Your task to perform on an android device: Open calendar and show me the first week of next month Image 0: 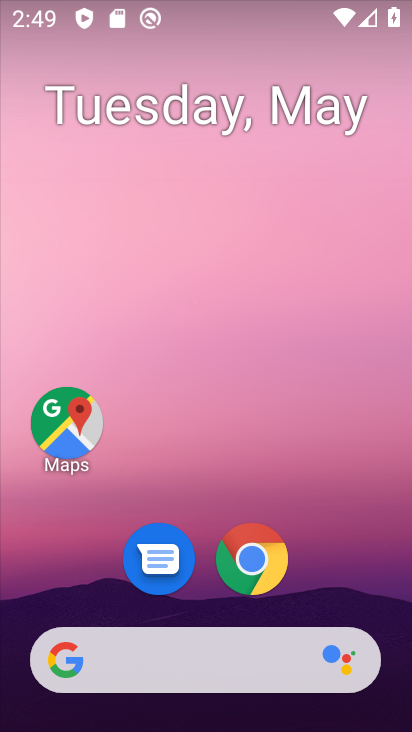
Step 0: drag from (202, 601) to (326, 68)
Your task to perform on an android device: Open calendar and show me the first week of next month Image 1: 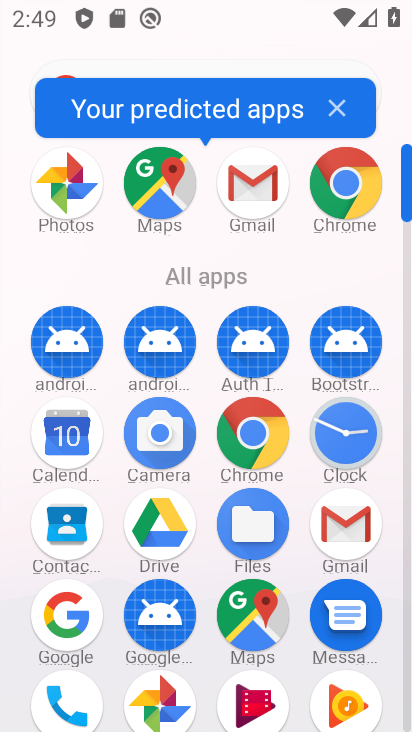
Step 1: click (83, 456)
Your task to perform on an android device: Open calendar and show me the first week of next month Image 2: 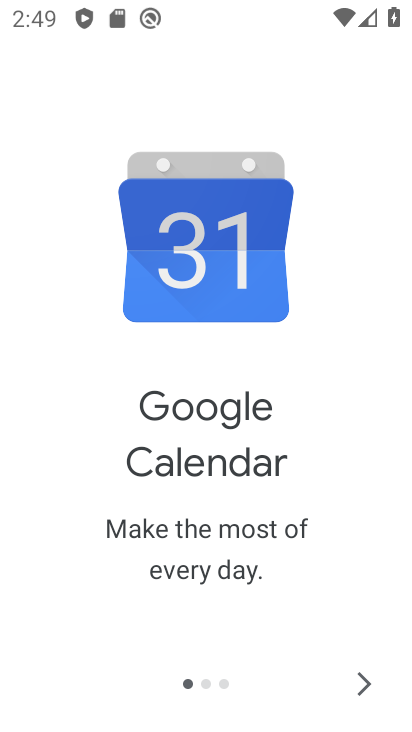
Step 2: click (343, 693)
Your task to perform on an android device: Open calendar and show me the first week of next month Image 3: 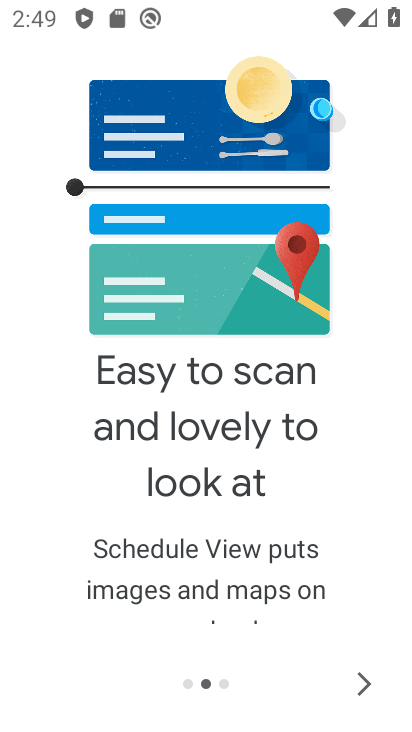
Step 3: click (356, 681)
Your task to perform on an android device: Open calendar and show me the first week of next month Image 4: 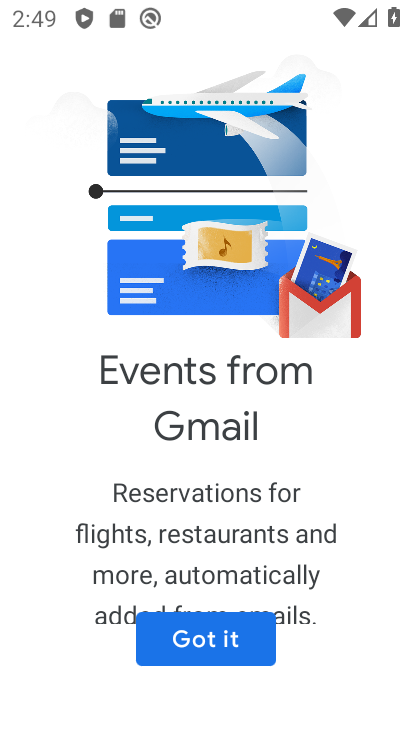
Step 4: click (247, 644)
Your task to perform on an android device: Open calendar and show me the first week of next month Image 5: 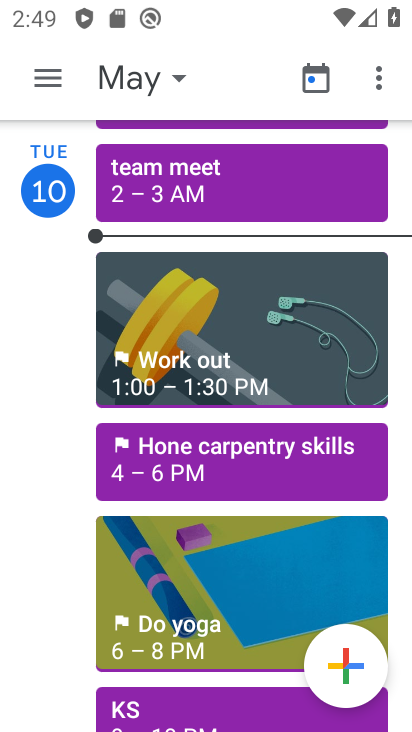
Step 5: click (55, 78)
Your task to perform on an android device: Open calendar and show me the first week of next month Image 6: 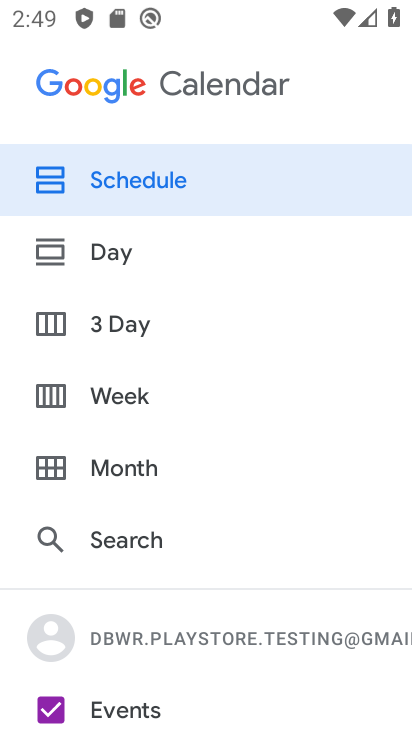
Step 6: click (119, 404)
Your task to perform on an android device: Open calendar and show me the first week of next month Image 7: 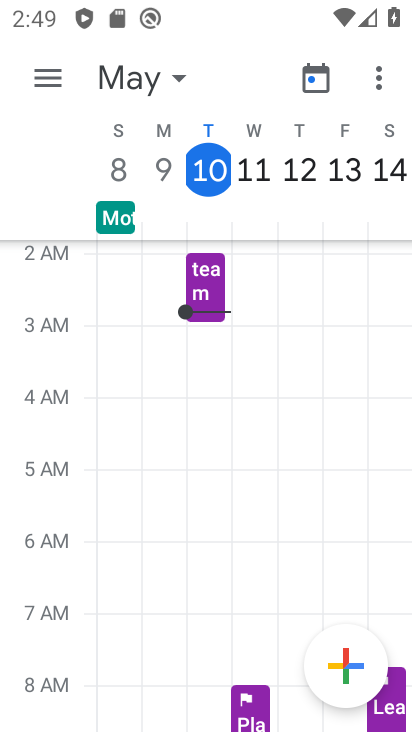
Step 7: click (175, 76)
Your task to perform on an android device: Open calendar and show me the first week of next month Image 8: 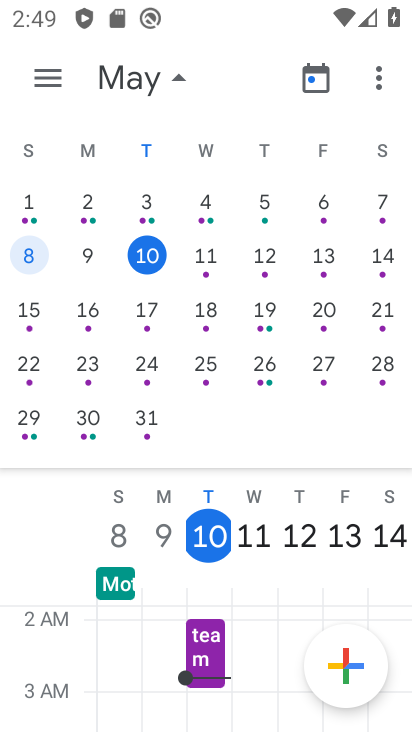
Step 8: drag from (386, 202) to (62, 208)
Your task to perform on an android device: Open calendar and show me the first week of next month Image 9: 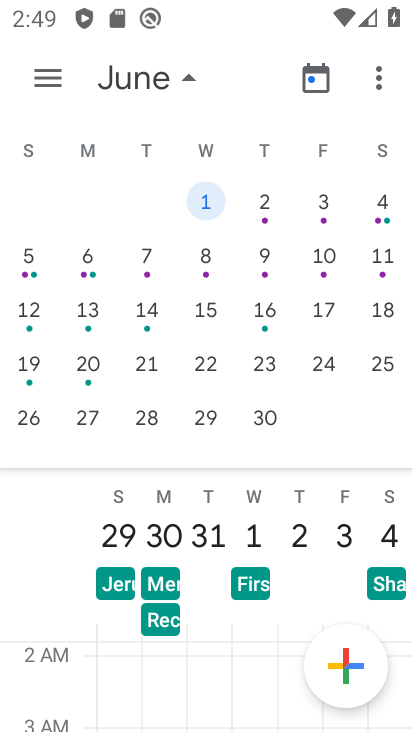
Step 9: click (29, 260)
Your task to perform on an android device: Open calendar and show me the first week of next month Image 10: 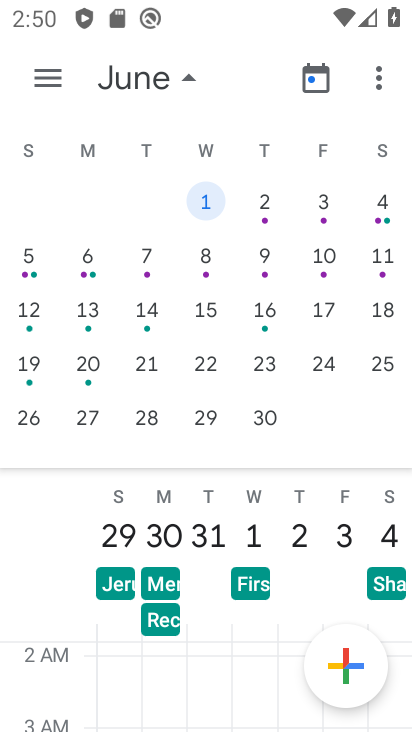
Step 10: click (30, 259)
Your task to perform on an android device: Open calendar and show me the first week of next month Image 11: 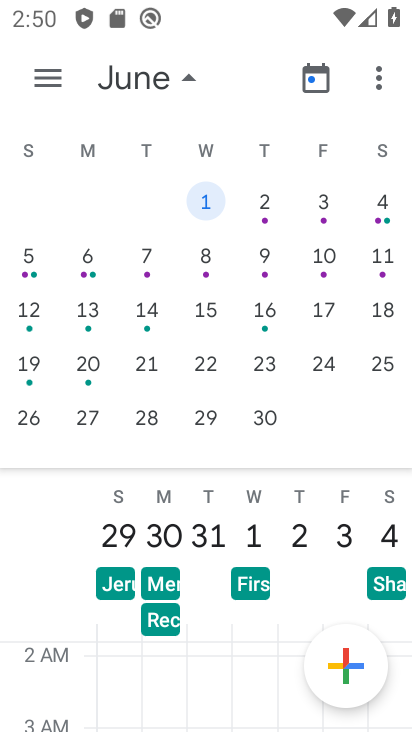
Step 11: click (30, 264)
Your task to perform on an android device: Open calendar and show me the first week of next month Image 12: 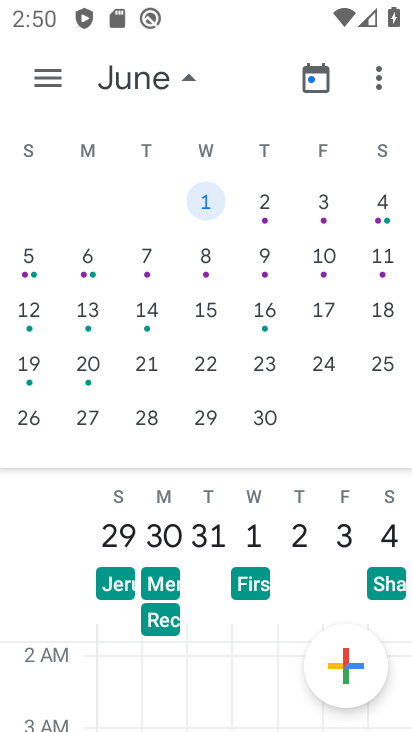
Step 12: click (30, 275)
Your task to perform on an android device: Open calendar and show me the first week of next month Image 13: 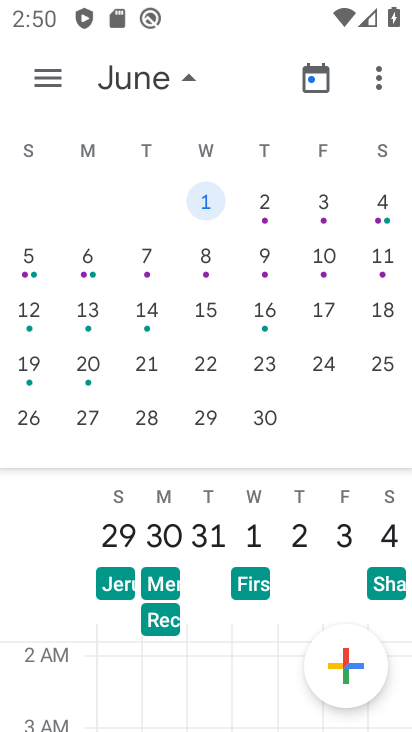
Step 13: click (30, 255)
Your task to perform on an android device: Open calendar and show me the first week of next month Image 14: 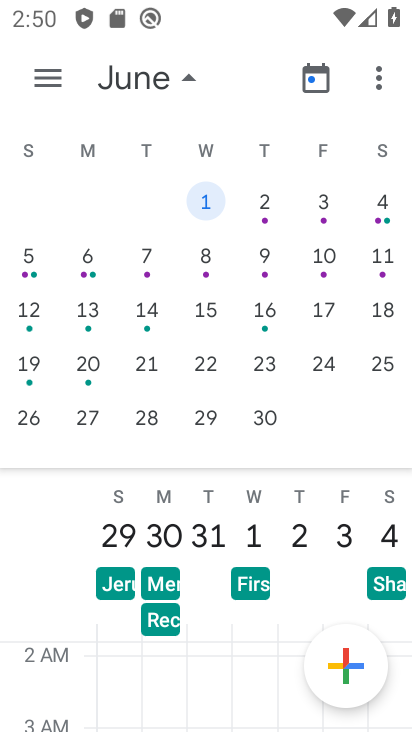
Step 14: click (38, 259)
Your task to perform on an android device: Open calendar and show me the first week of next month Image 15: 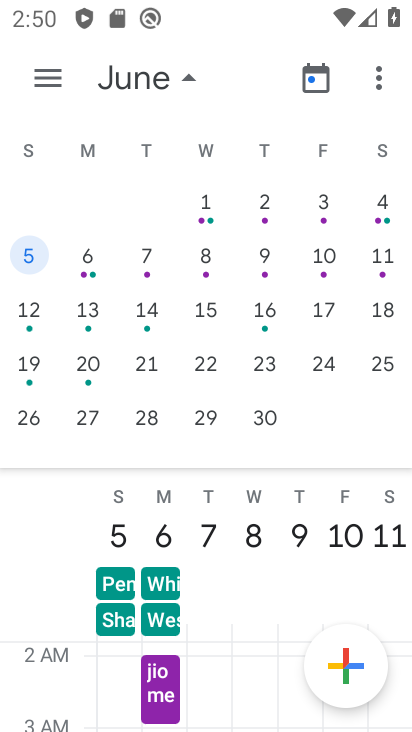
Step 15: click (187, 83)
Your task to perform on an android device: Open calendar and show me the first week of next month Image 16: 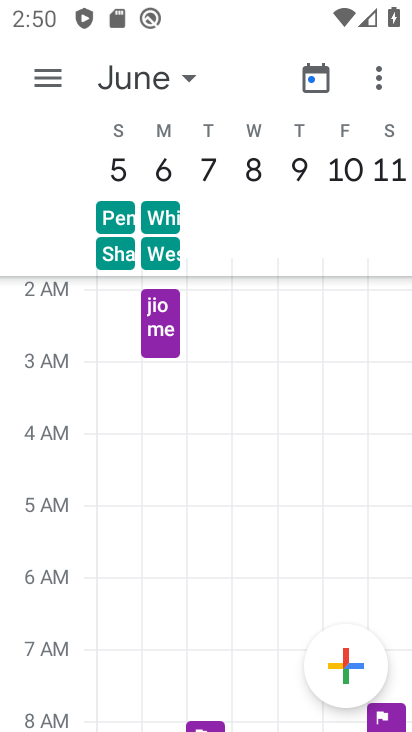
Step 16: task complete